Your task to perform on an android device: add a contact in the contacts app Image 0: 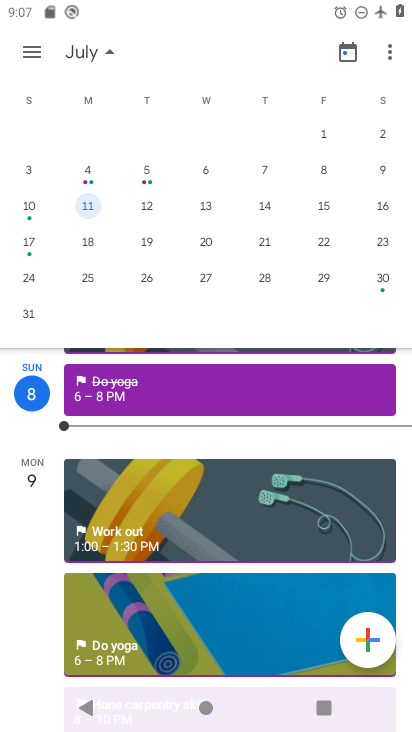
Step 0: press home button
Your task to perform on an android device: add a contact in the contacts app Image 1: 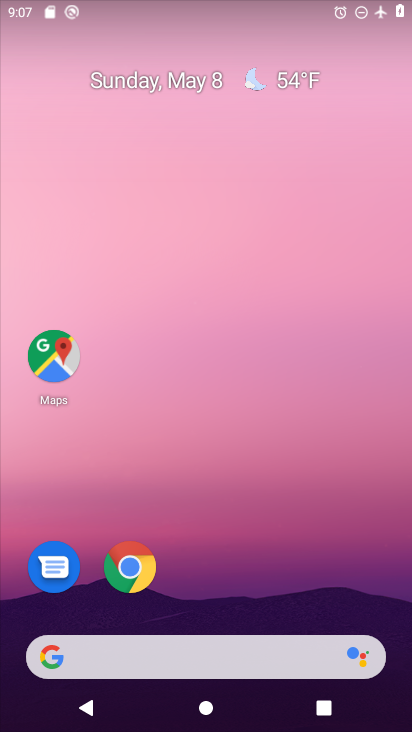
Step 1: drag from (322, 562) to (287, 136)
Your task to perform on an android device: add a contact in the contacts app Image 2: 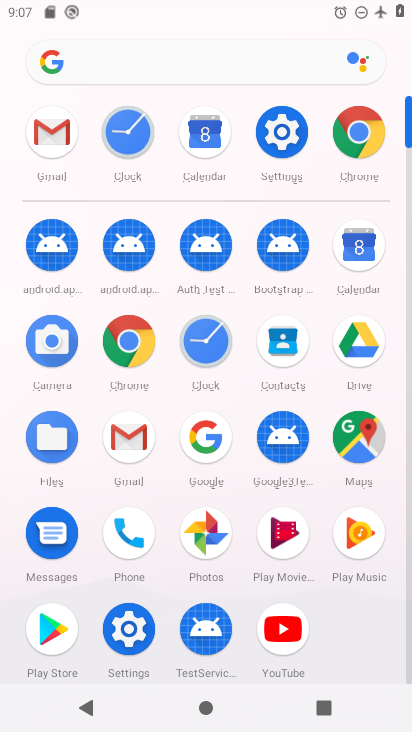
Step 2: click (128, 541)
Your task to perform on an android device: add a contact in the contacts app Image 3: 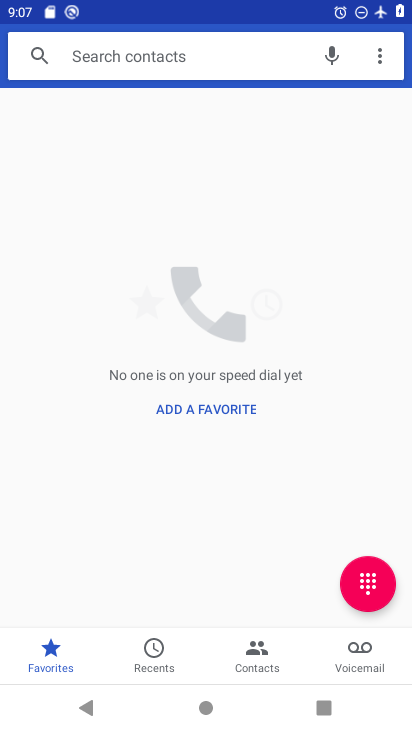
Step 3: click (261, 646)
Your task to perform on an android device: add a contact in the contacts app Image 4: 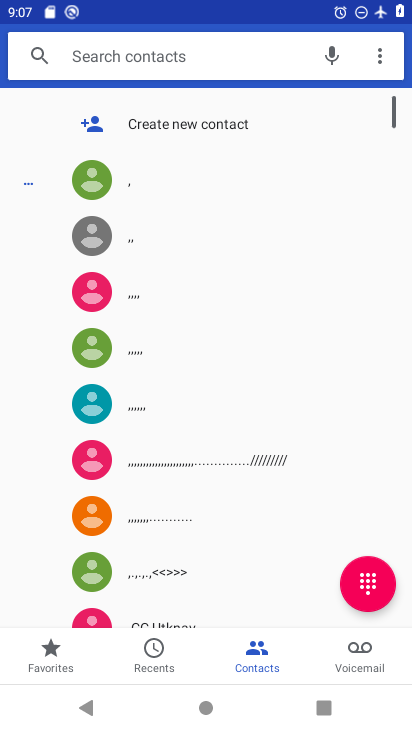
Step 4: click (126, 115)
Your task to perform on an android device: add a contact in the contacts app Image 5: 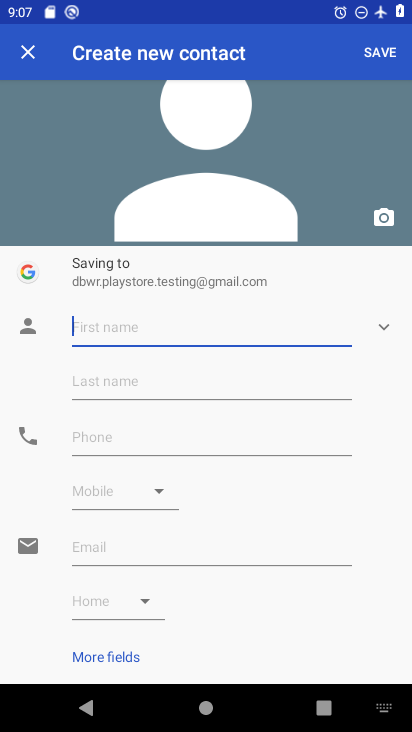
Step 5: type "a"
Your task to perform on an android device: add a contact in the contacts app Image 6: 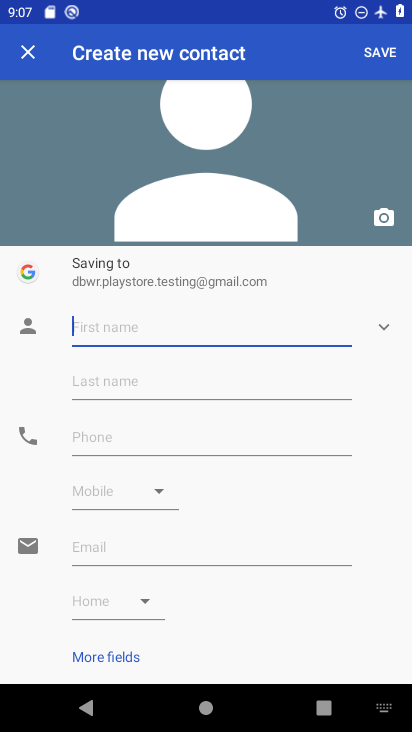
Step 6: click (235, 437)
Your task to perform on an android device: add a contact in the contacts app Image 7: 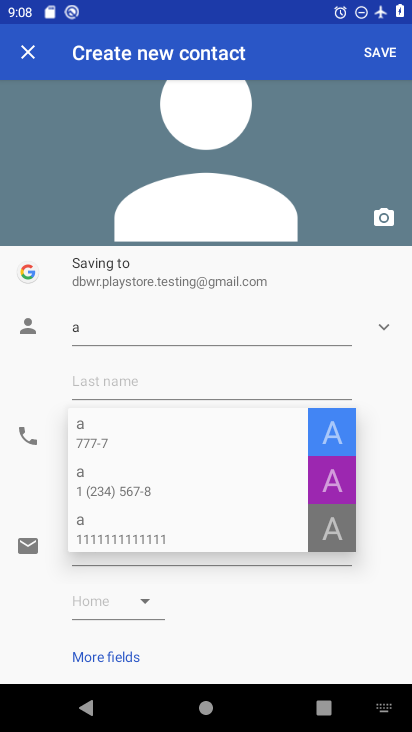
Step 7: type "6789878999"
Your task to perform on an android device: add a contact in the contacts app Image 8: 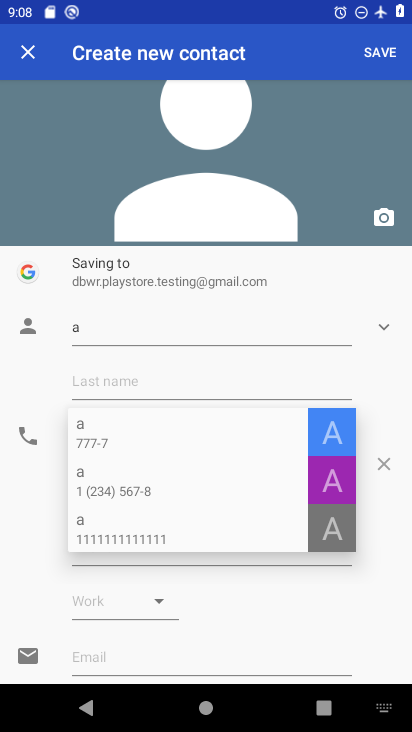
Step 8: click (376, 48)
Your task to perform on an android device: add a contact in the contacts app Image 9: 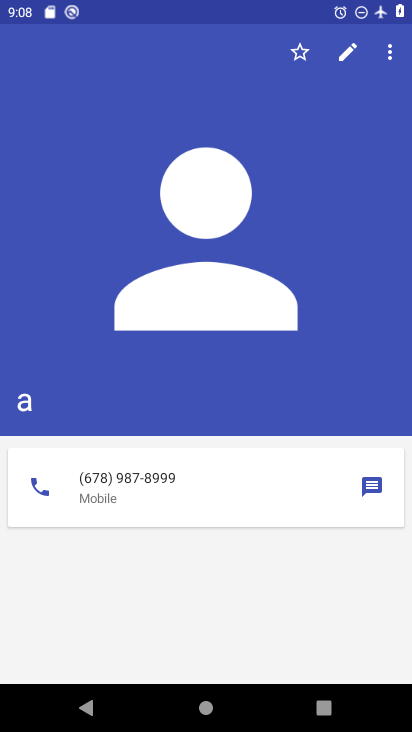
Step 9: task complete